Your task to perform on an android device: Do I have any events this weekend? Image 0: 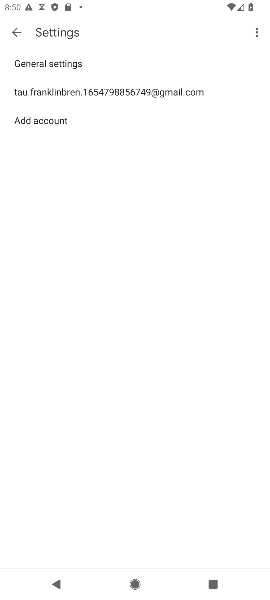
Step 0: press home button
Your task to perform on an android device: Do I have any events this weekend? Image 1: 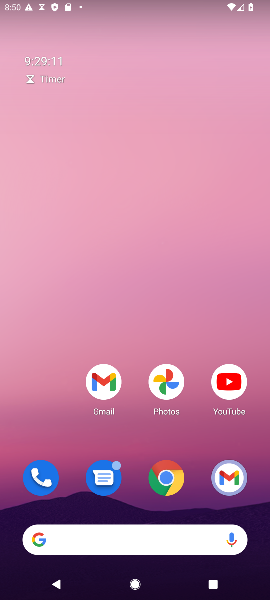
Step 1: drag from (202, 434) to (161, 168)
Your task to perform on an android device: Do I have any events this weekend? Image 2: 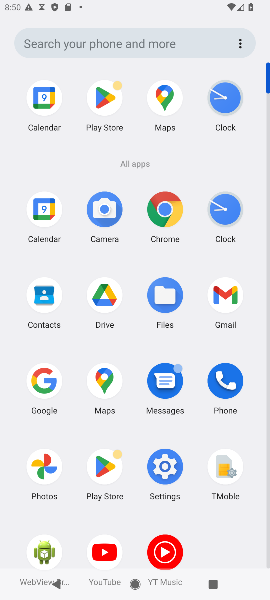
Step 2: click (45, 220)
Your task to perform on an android device: Do I have any events this weekend? Image 3: 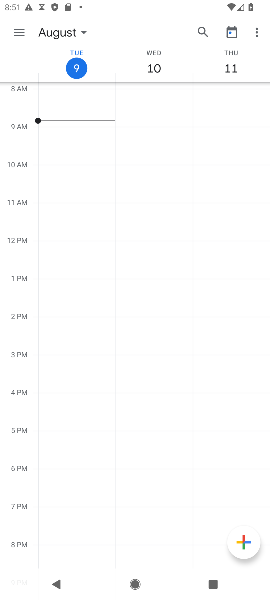
Step 3: click (19, 39)
Your task to perform on an android device: Do I have any events this weekend? Image 4: 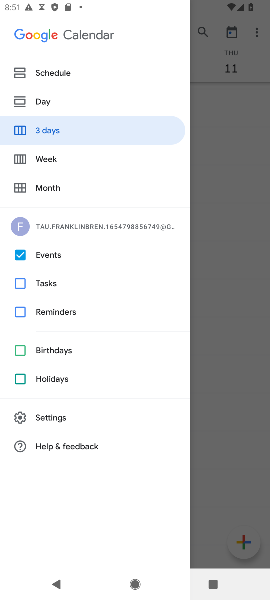
Step 4: click (54, 127)
Your task to perform on an android device: Do I have any events this weekend? Image 5: 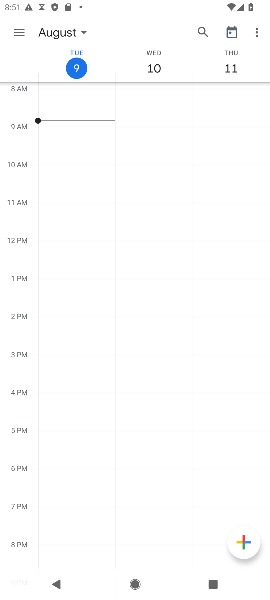
Step 5: task complete